Your task to perform on an android device: turn on the 24-hour format for clock Image 0: 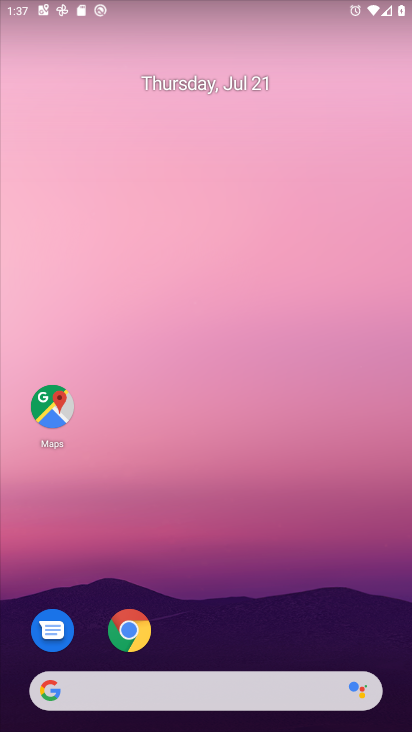
Step 0: drag from (175, 646) to (214, 129)
Your task to perform on an android device: turn on the 24-hour format for clock Image 1: 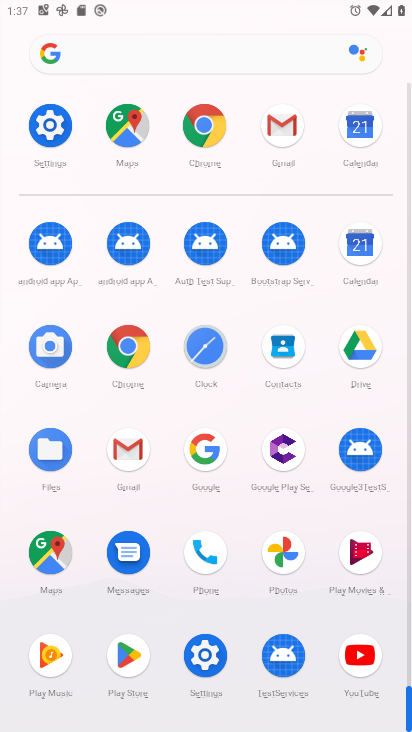
Step 1: click (204, 345)
Your task to perform on an android device: turn on the 24-hour format for clock Image 2: 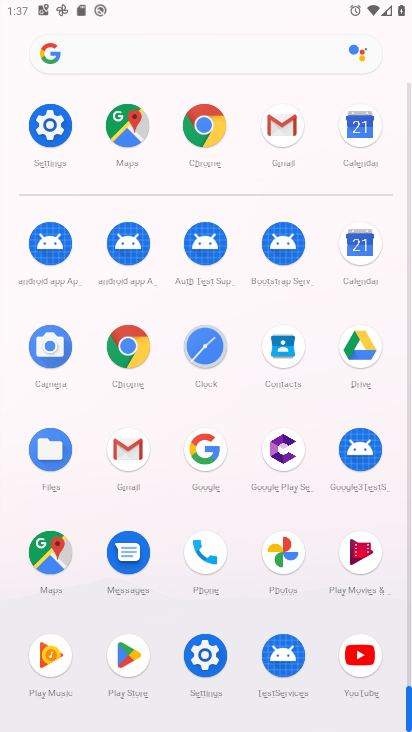
Step 2: click (204, 345)
Your task to perform on an android device: turn on the 24-hour format for clock Image 3: 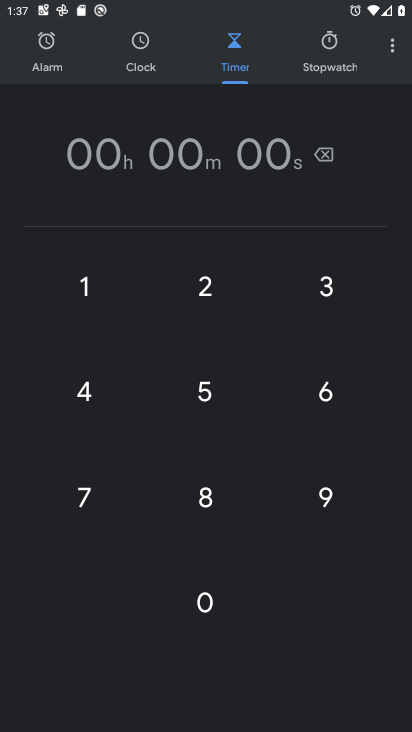
Step 3: drag from (387, 45) to (318, 89)
Your task to perform on an android device: turn on the 24-hour format for clock Image 4: 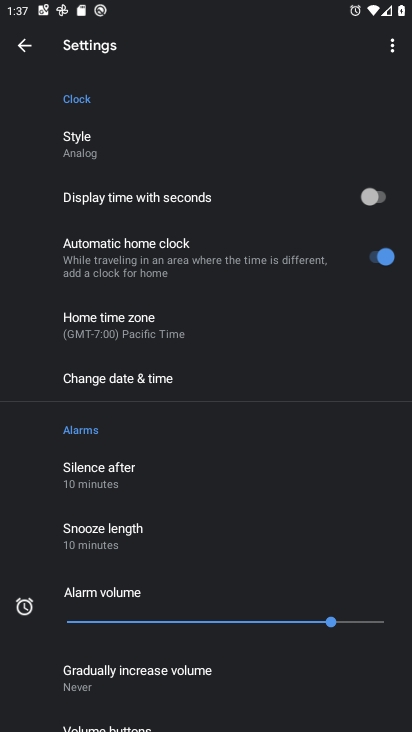
Step 4: click (182, 379)
Your task to perform on an android device: turn on the 24-hour format for clock Image 5: 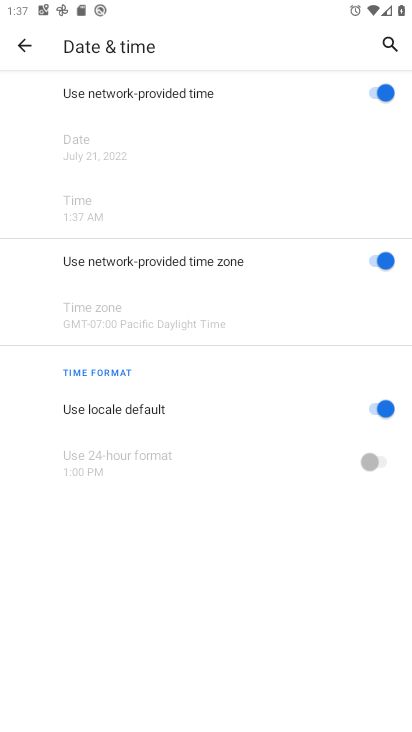
Step 5: click (375, 411)
Your task to perform on an android device: turn on the 24-hour format for clock Image 6: 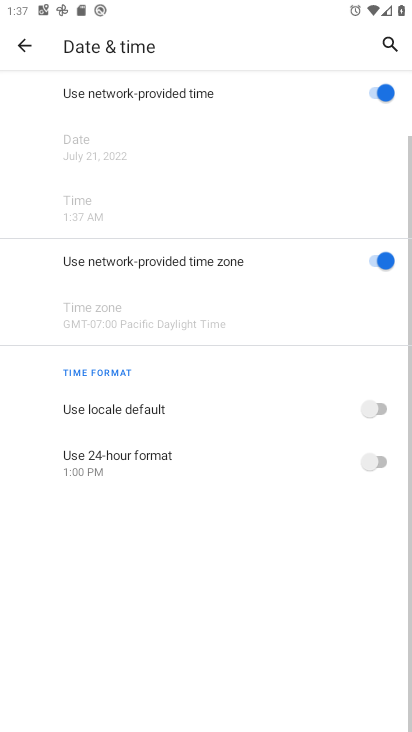
Step 6: click (378, 461)
Your task to perform on an android device: turn on the 24-hour format for clock Image 7: 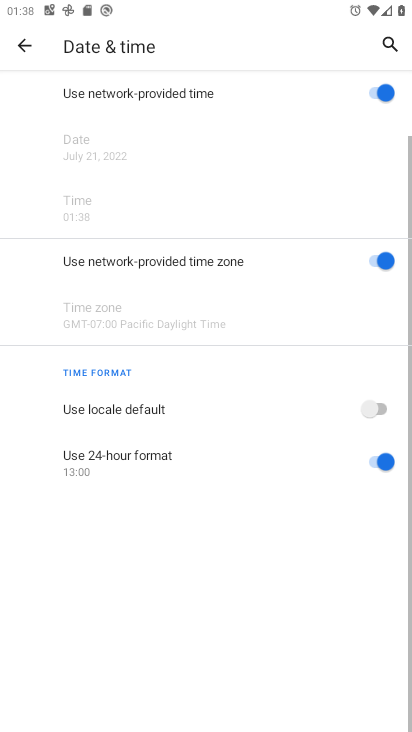
Step 7: task complete